Your task to perform on an android device: Open location settings Image 0: 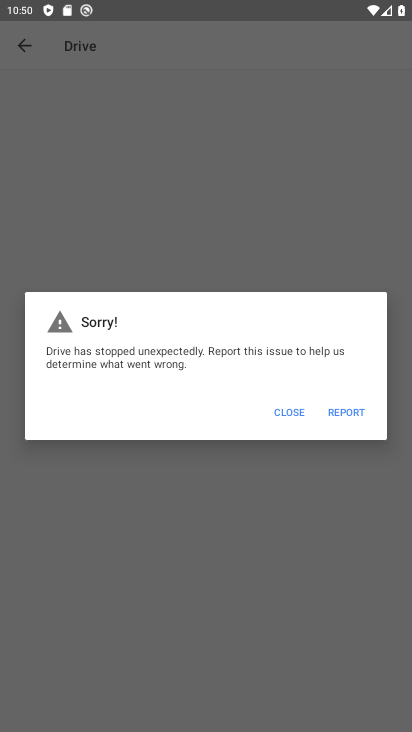
Step 0: drag from (269, 594) to (256, 304)
Your task to perform on an android device: Open location settings Image 1: 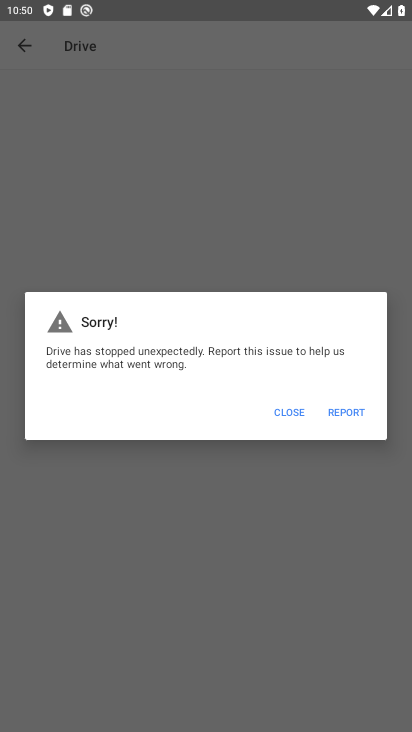
Step 1: press home button
Your task to perform on an android device: Open location settings Image 2: 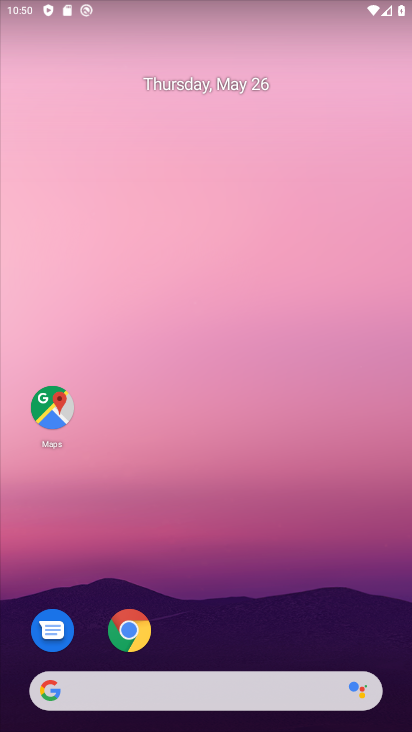
Step 2: drag from (229, 611) to (285, 79)
Your task to perform on an android device: Open location settings Image 3: 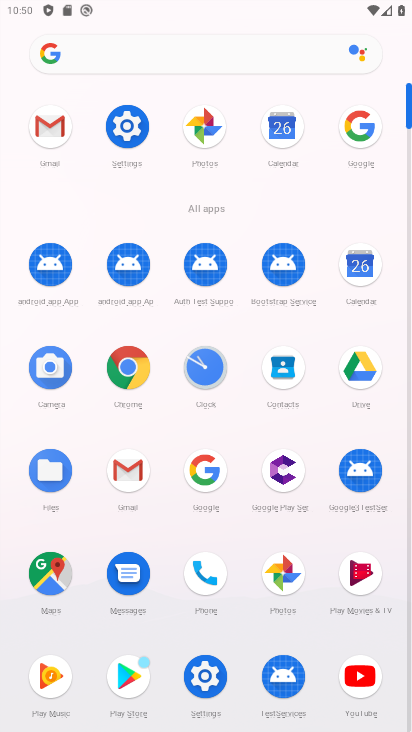
Step 3: click (203, 677)
Your task to perform on an android device: Open location settings Image 4: 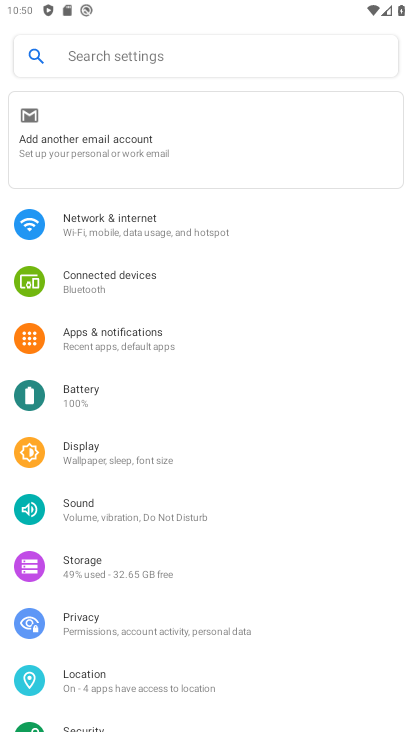
Step 4: drag from (121, 648) to (201, 515)
Your task to perform on an android device: Open location settings Image 5: 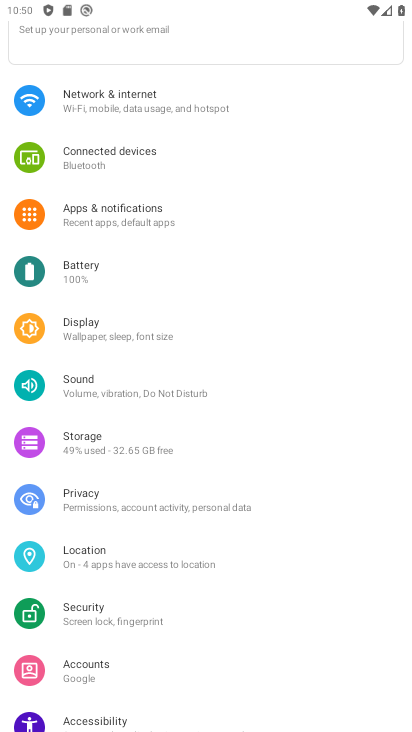
Step 5: click (144, 562)
Your task to perform on an android device: Open location settings Image 6: 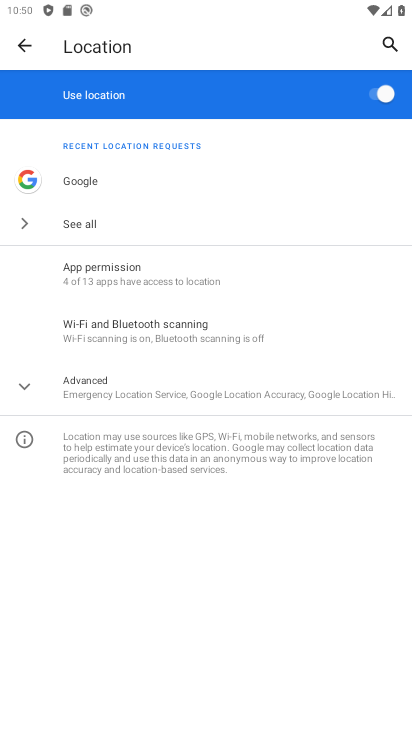
Step 6: task complete